Your task to perform on an android device: delete the emails in spam in the gmail app Image 0: 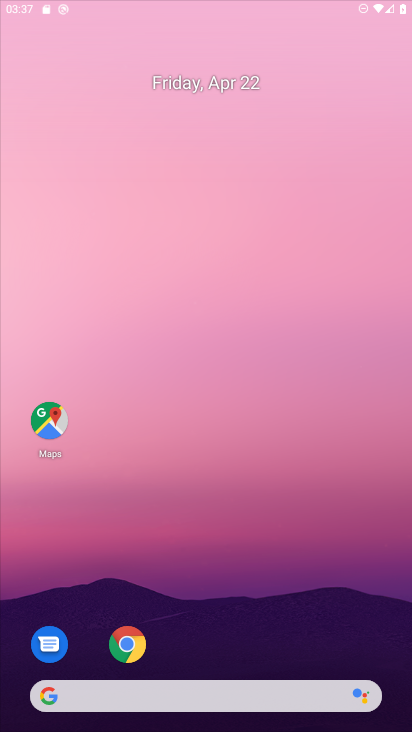
Step 0: click (217, 110)
Your task to perform on an android device: delete the emails in spam in the gmail app Image 1: 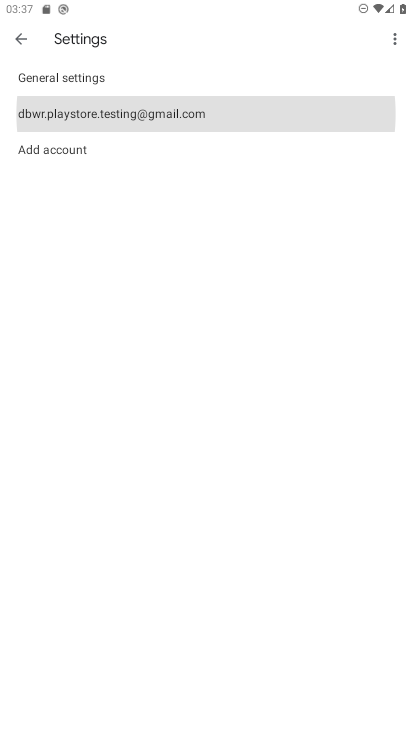
Step 1: drag from (228, 568) to (309, 107)
Your task to perform on an android device: delete the emails in spam in the gmail app Image 2: 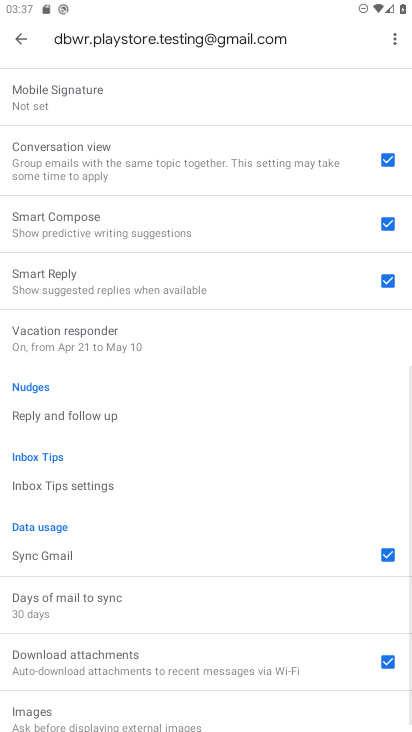
Step 2: press home button
Your task to perform on an android device: delete the emails in spam in the gmail app Image 3: 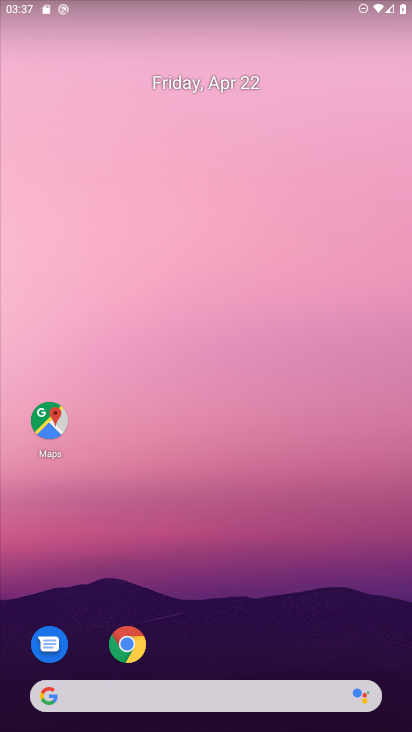
Step 3: drag from (267, 587) to (280, 102)
Your task to perform on an android device: delete the emails in spam in the gmail app Image 4: 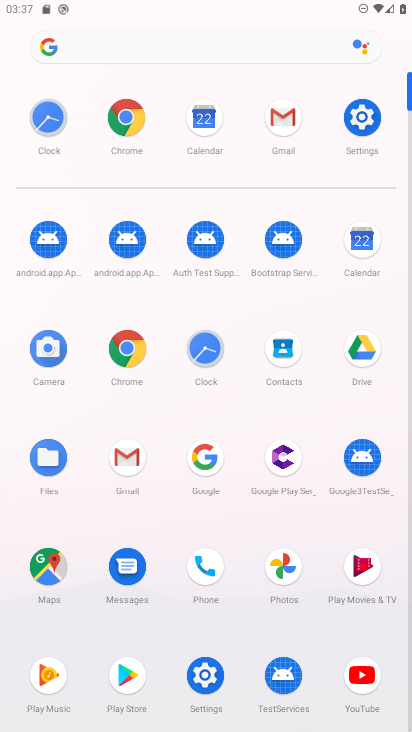
Step 4: drag from (124, 341) to (230, 626)
Your task to perform on an android device: delete the emails in spam in the gmail app Image 5: 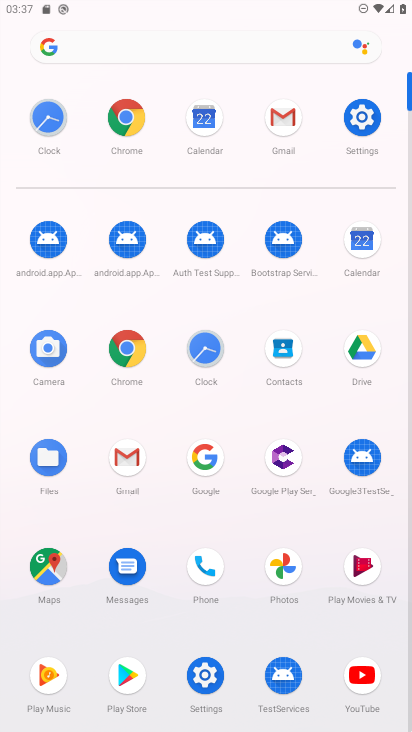
Step 5: click (121, 470)
Your task to perform on an android device: delete the emails in spam in the gmail app Image 6: 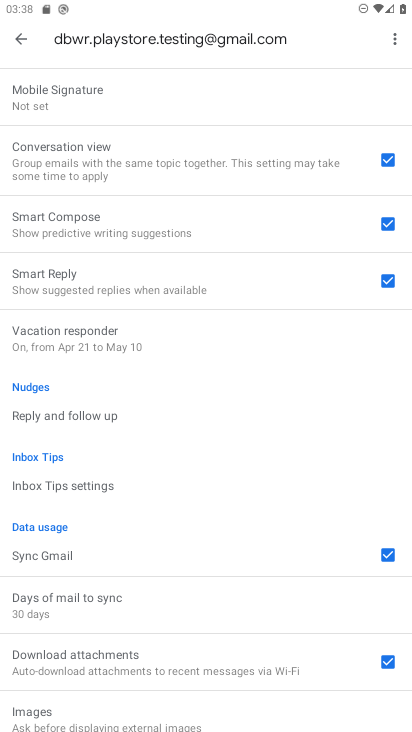
Step 6: click (24, 39)
Your task to perform on an android device: delete the emails in spam in the gmail app Image 7: 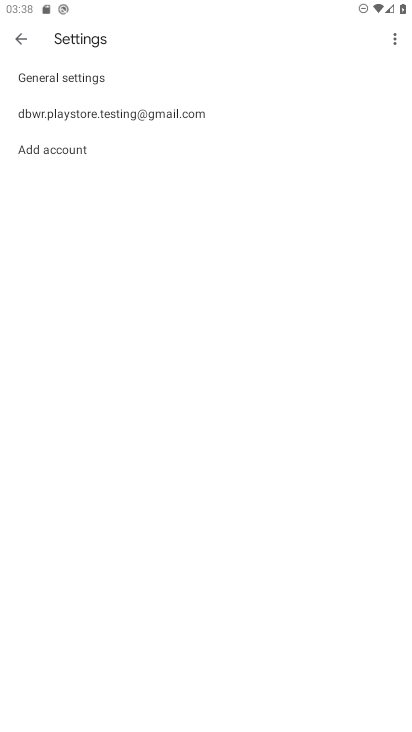
Step 7: click (24, 39)
Your task to perform on an android device: delete the emails in spam in the gmail app Image 8: 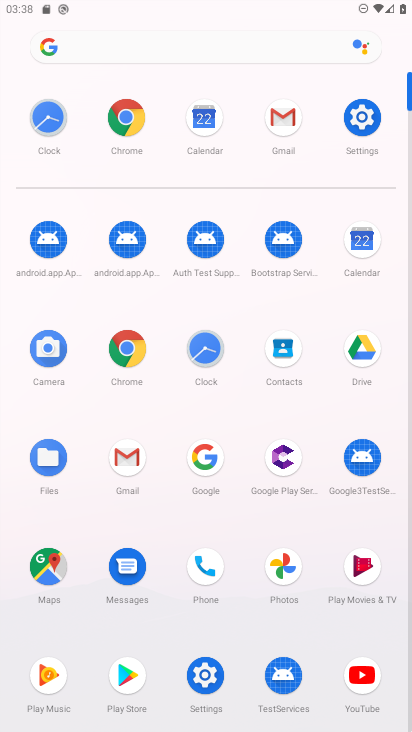
Step 8: click (129, 455)
Your task to perform on an android device: delete the emails in spam in the gmail app Image 9: 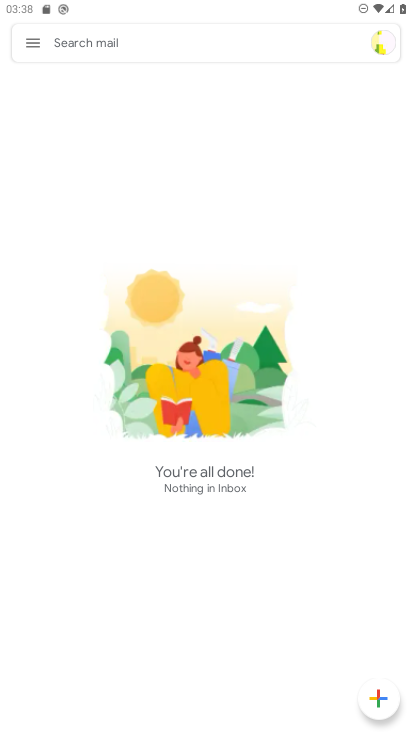
Step 9: click (37, 39)
Your task to perform on an android device: delete the emails in spam in the gmail app Image 10: 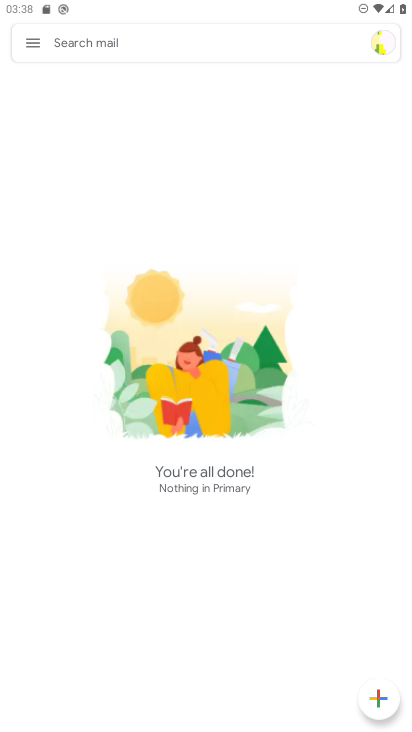
Step 10: click (23, 41)
Your task to perform on an android device: delete the emails in spam in the gmail app Image 11: 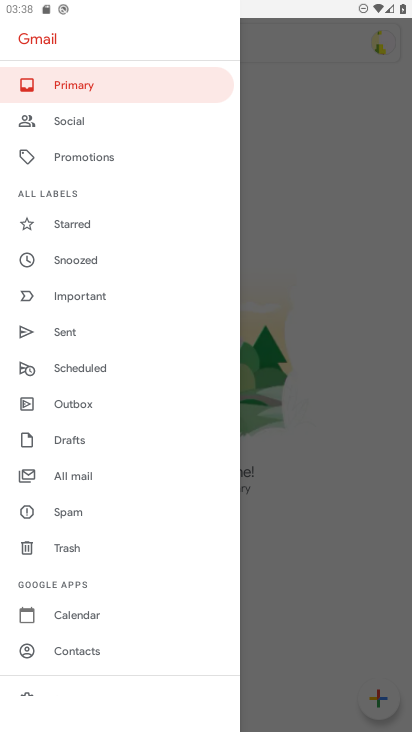
Step 11: click (65, 510)
Your task to perform on an android device: delete the emails in spam in the gmail app Image 12: 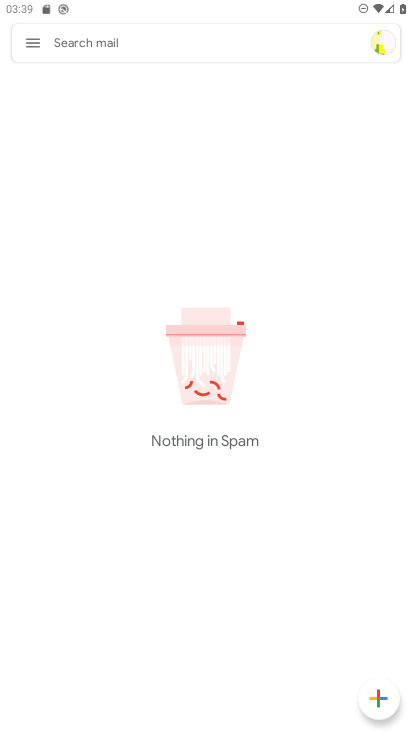
Step 12: task complete